Your task to perform on an android device: remove spam from my inbox in the gmail app Image 0: 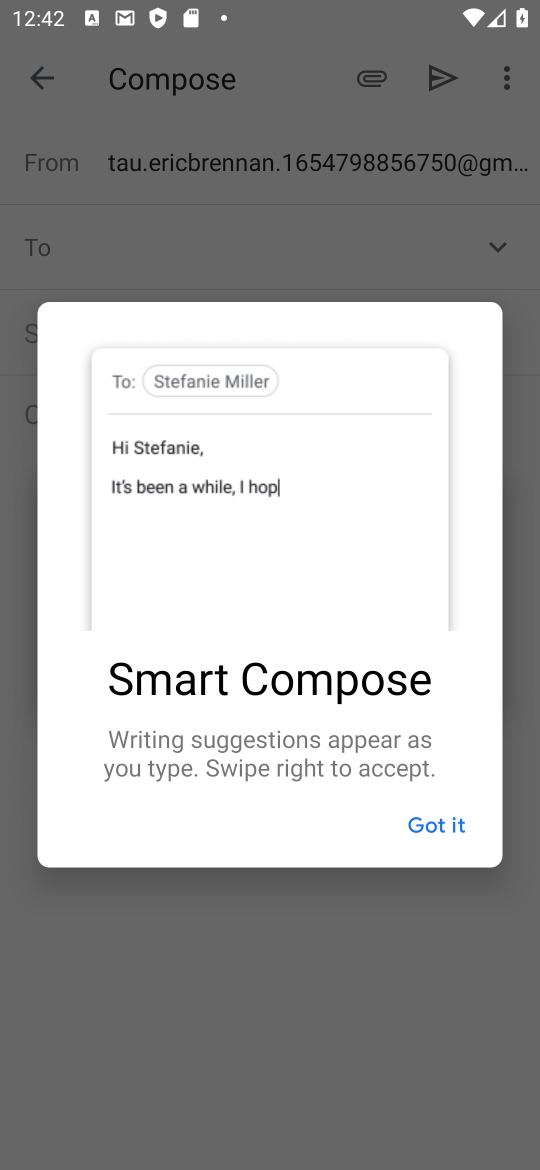
Step 0: press home button
Your task to perform on an android device: remove spam from my inbox in the gmail app Image 1: 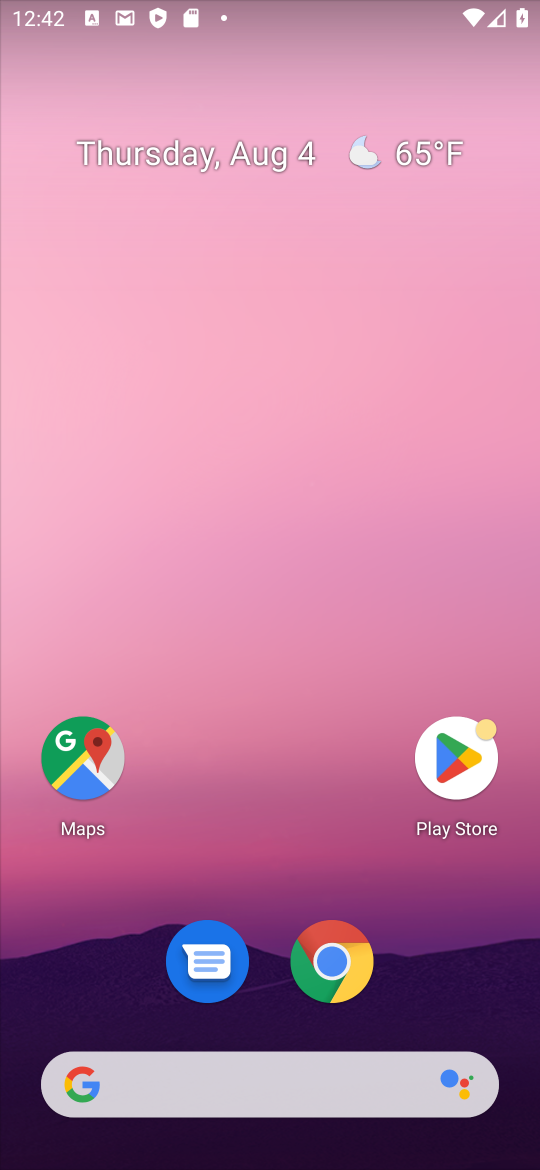
Step 1: drag from (301, 748) to (279, 62)
Your task to perform on an android device: remove spam from my inbox in the gmail app Image 2: 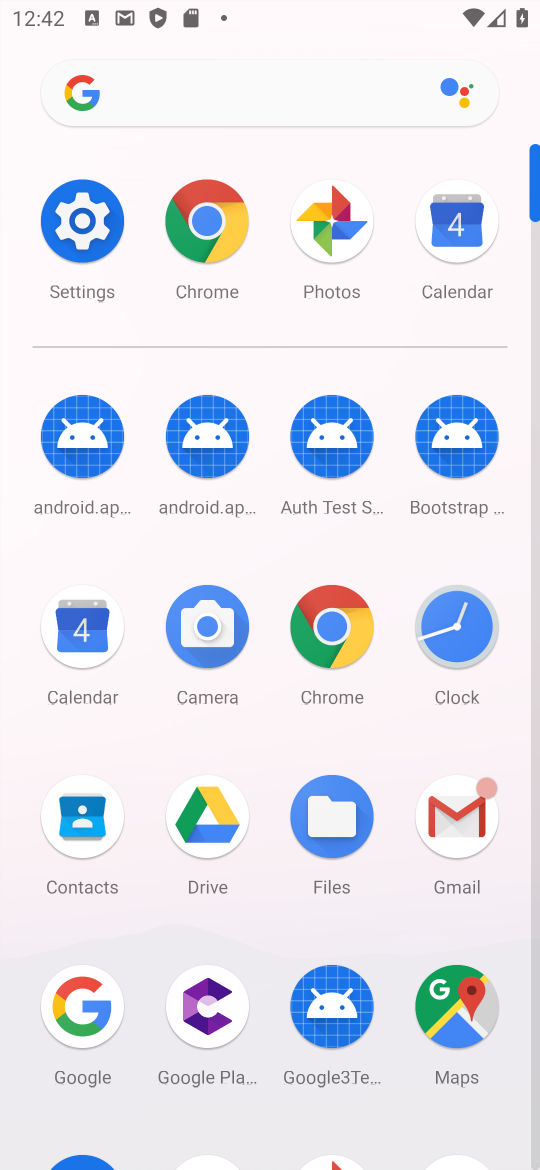
Step 2: click (447, 827)
Your task to perform on an android device: remove spam from my inbox in the gmail app Image 3: 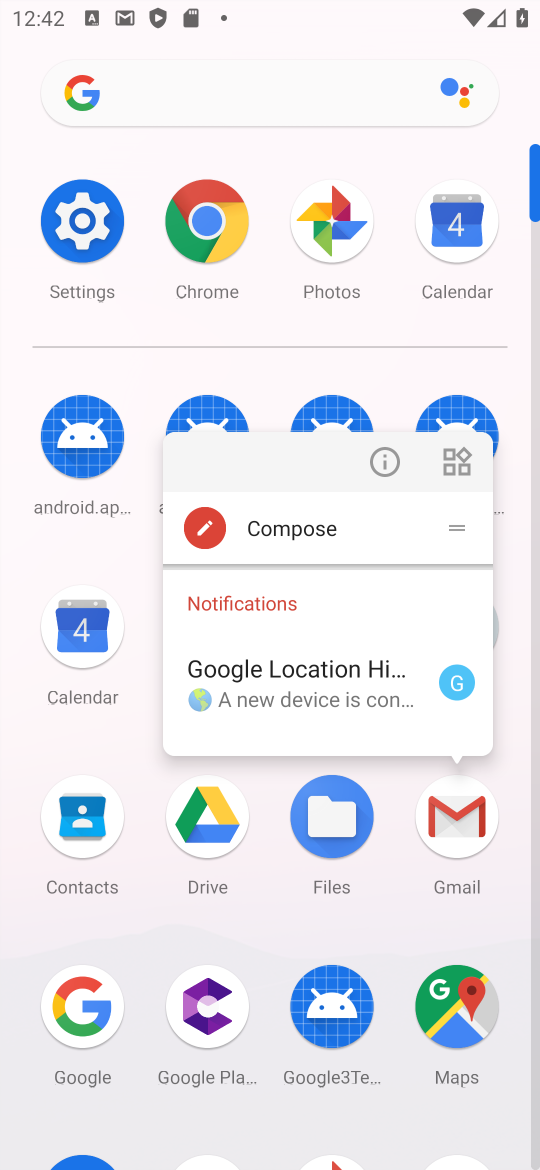
Step 3: click (442, 812)
Your task to perform on an android device: remove spam from my inbox in the gmail app Image 4: 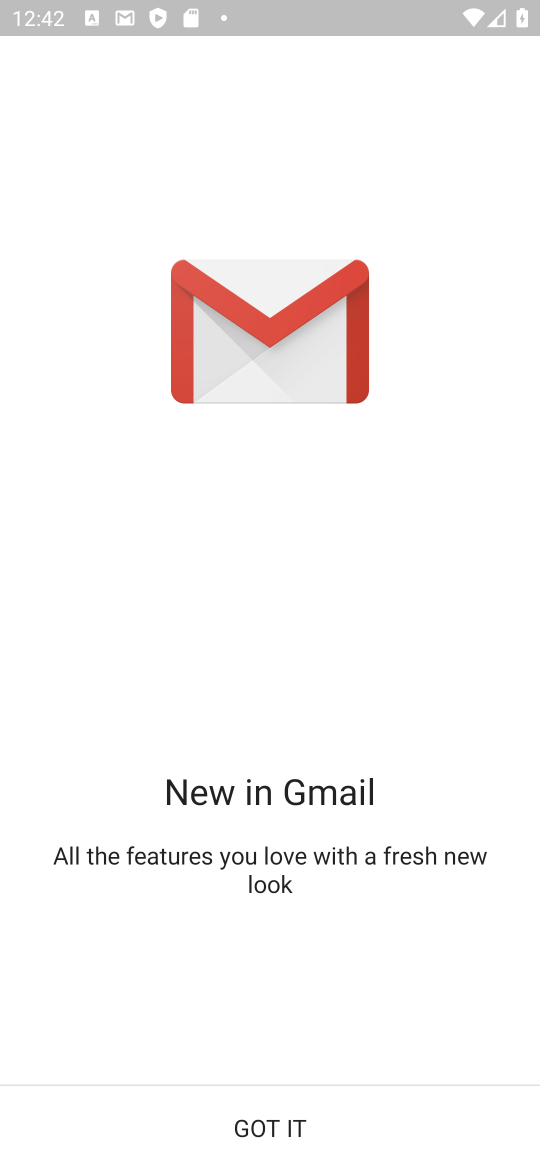
Step 4: click (362, 1115)
Your task to perform on an android device: remove spam from my inbox in the gmail app Image 5: 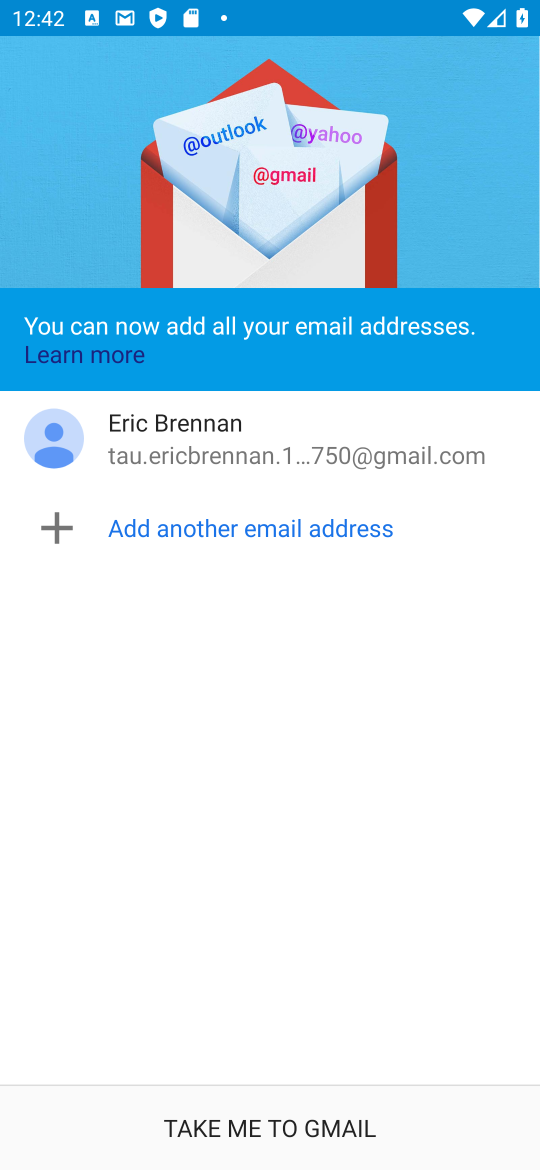
Step 5: click (362, 1115)
Your task to perform on an android device: remove spam from my inbox in the gmail app Image 6: 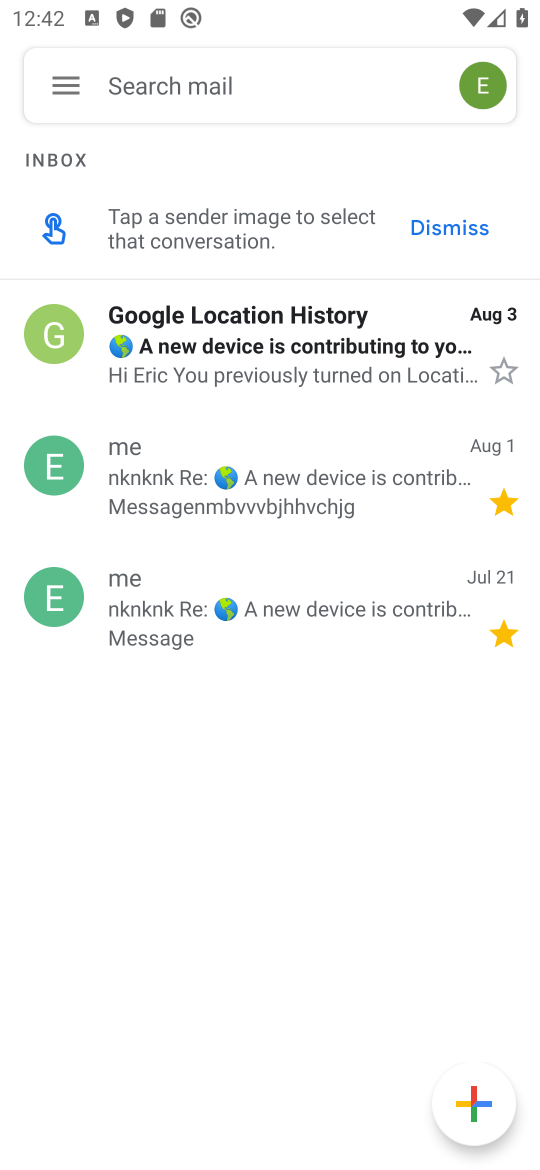
Step 6: click (60, 86)
Your task to perform on an android device: remove spam from my inbox in the gmail app Image 7: 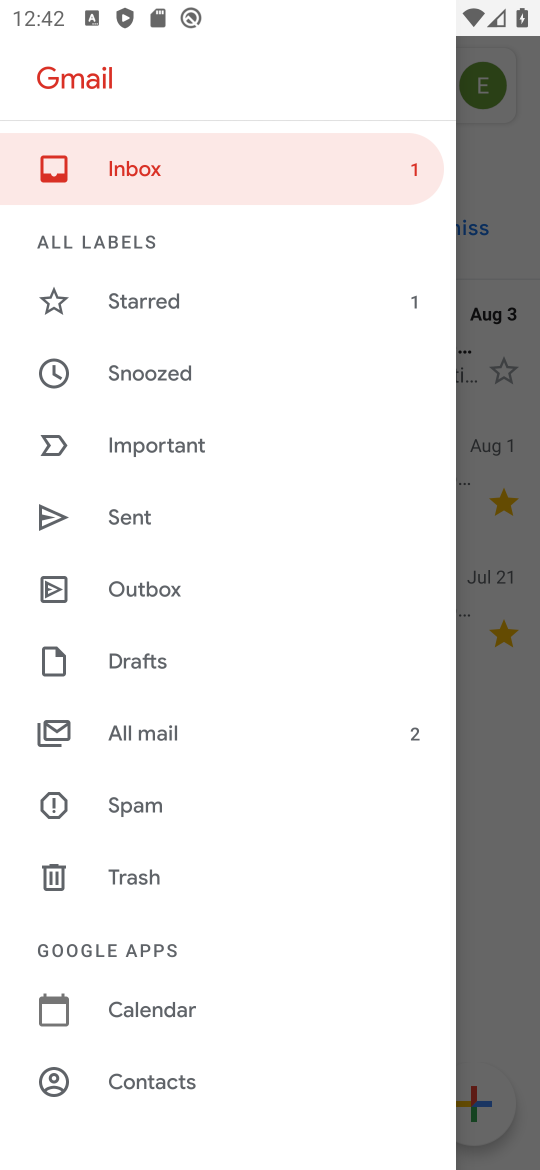
Step 7: click (109, 796)
Your task to perform on an android device: remove spam from my inbox in the gmail app Image 8: 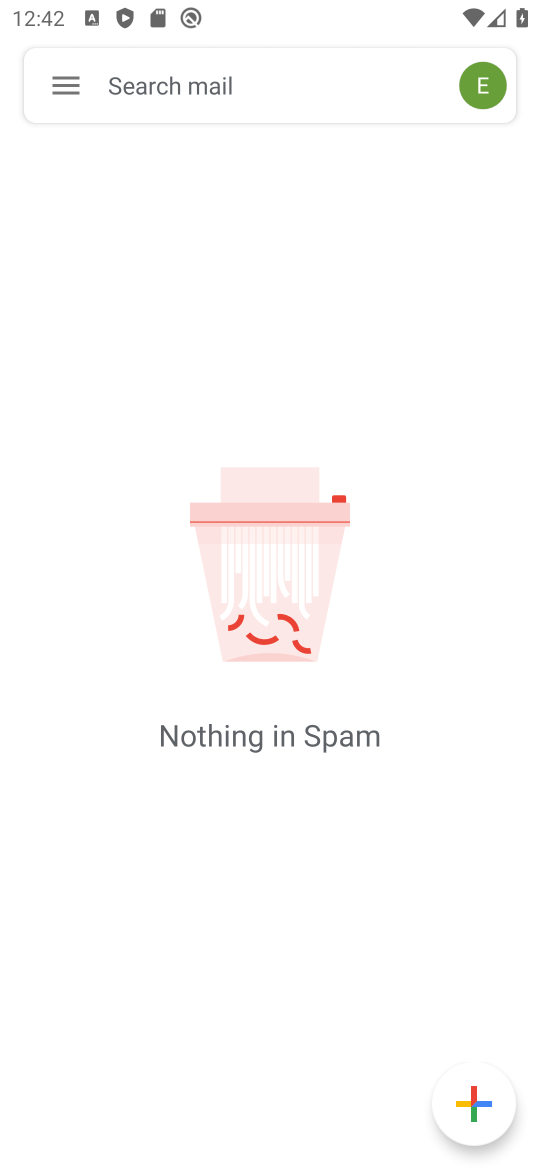
Step 8: task complete